Your task to perform on an android device: What's on my calendar today? Image 0: 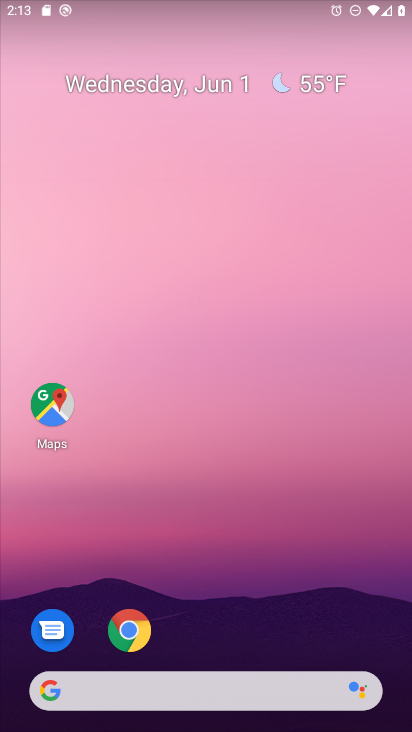
Step 0: drag from (298, 658) to (298, 4)
Your task to perform on an android device: What's on my calendar today? Image 1: 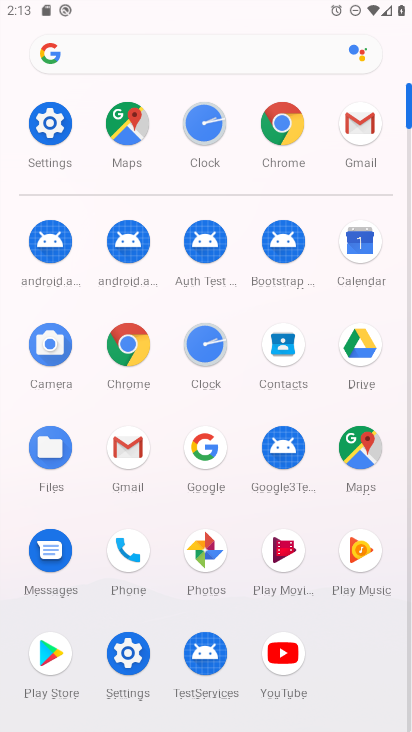
Step 1: click (343, 235)
Your task to perform on an android device: What's on my calendar today? Image 2: 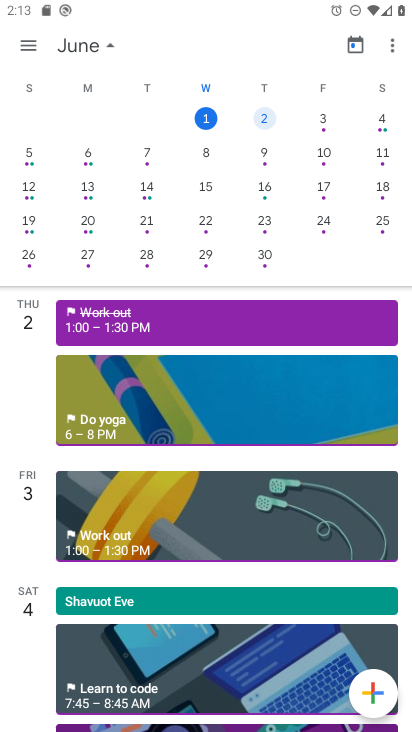
Step 2: click (214, 117)
Your task to perform on an android device: What's on my calendar today? Image 3: 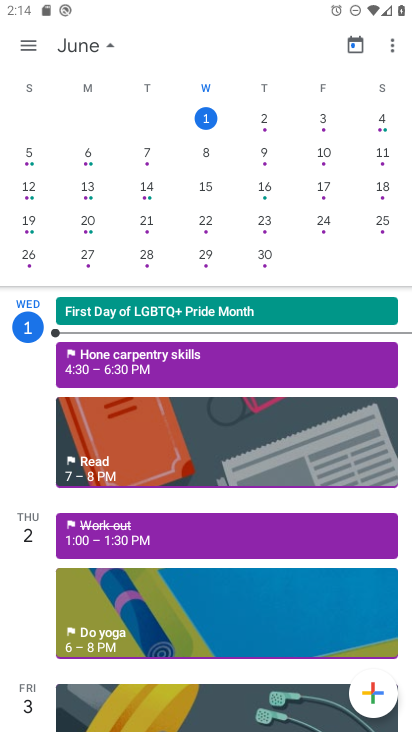
Step 3: task complete